Your task to perform on an android device: Open Google Maps and go to "Timeline" Image 0: 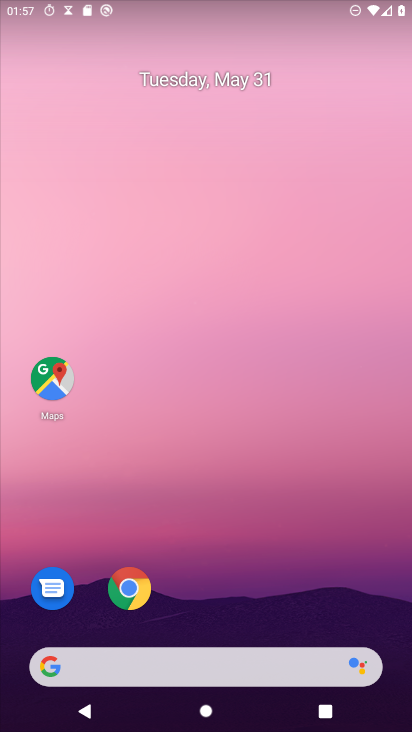
Step 0: drag from (307, 675) to (343, 3)
Your task to perform on an android device: Open Google Maps and go to "Timeline" Image 1: 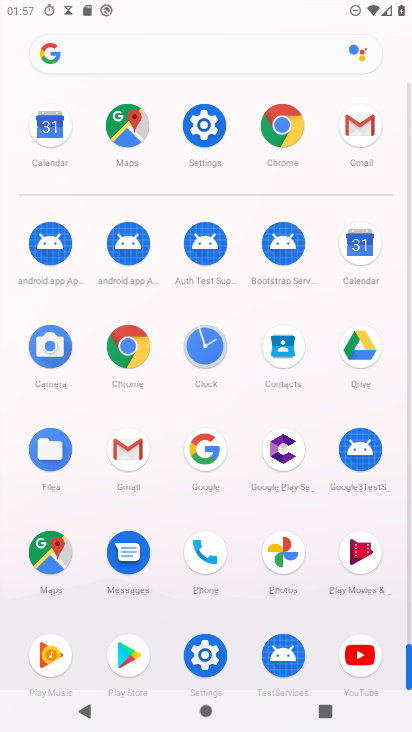
Step 1: click (49, 564)
Your task to perform on an android device: Open Google Maps and go to "Timeline" Image 2: 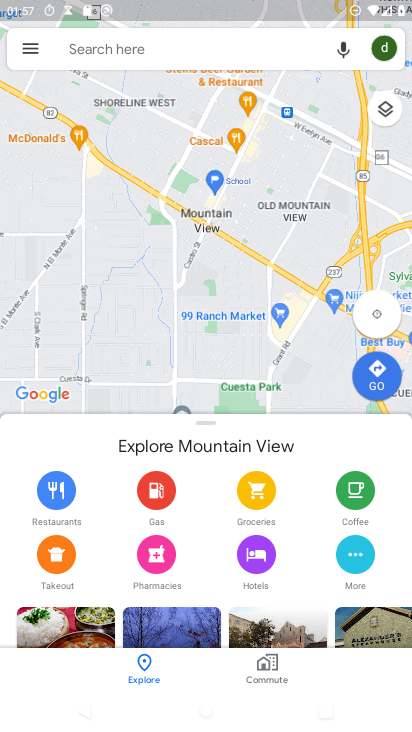
Step 2: click (27, 41)
Your task to perform on an android device: Open Google Maps and go to "Timeline" Image 3: 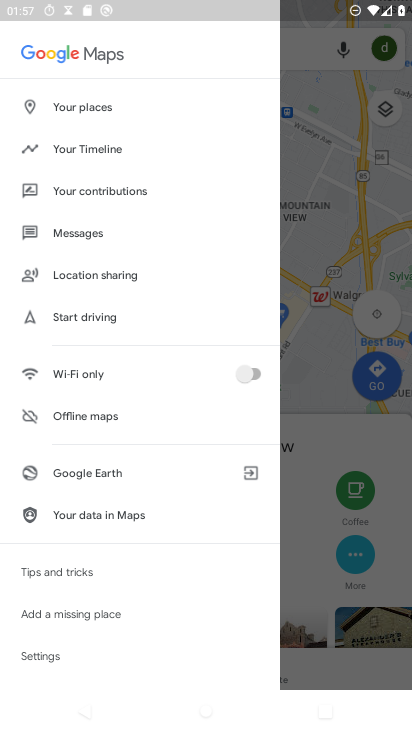
Step 3: click (87, 143)
Your task to perform on an android device: Open Google Maps and go to "Timeline" Image 4: 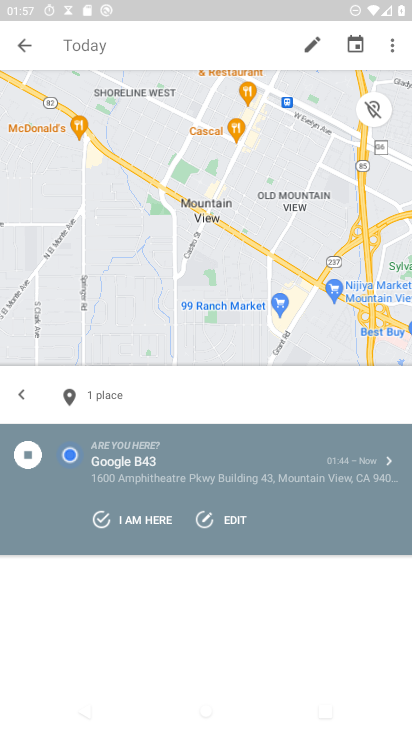
Step 4: task complete